Your task to perform on an android device: search for starred emails in the gmail app Image 0: 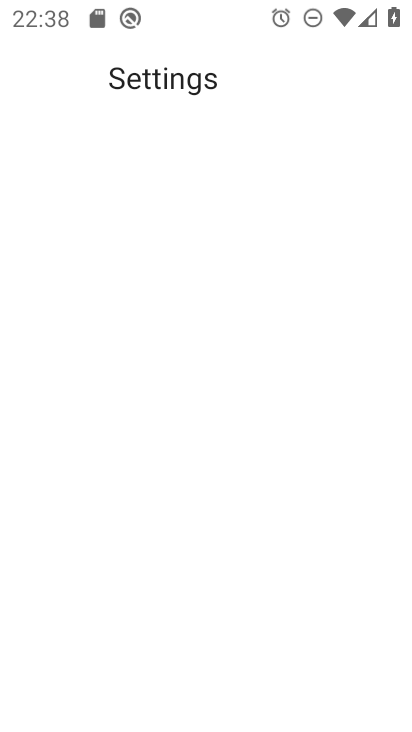
Step 0: click (370, 235)
Your task to perform on an android device: search for starred emails in the gmail app Image 1: 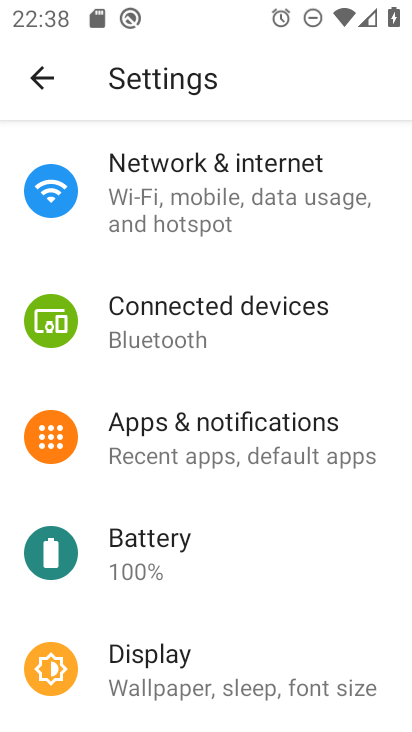
Step 1: press home button
Your task to perform on an android device: search for starred emails in the gmail app Image 2: 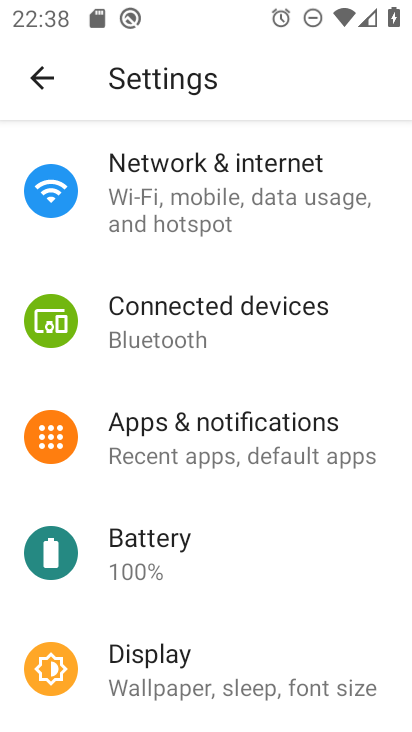
Step 2: press home button
Your task to perform on an android device: search for starred emails in the gmail app Image 3: 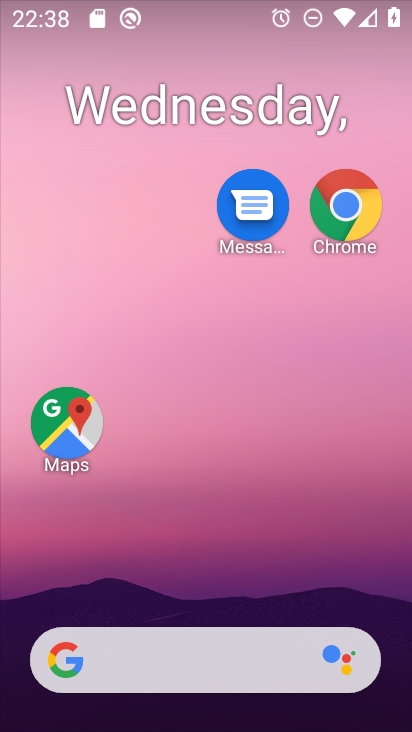
Step 3: drag from (164, 580) to (286, 170)
Your task to perform on an android device: search for starred emails in the gmail app Image 4: 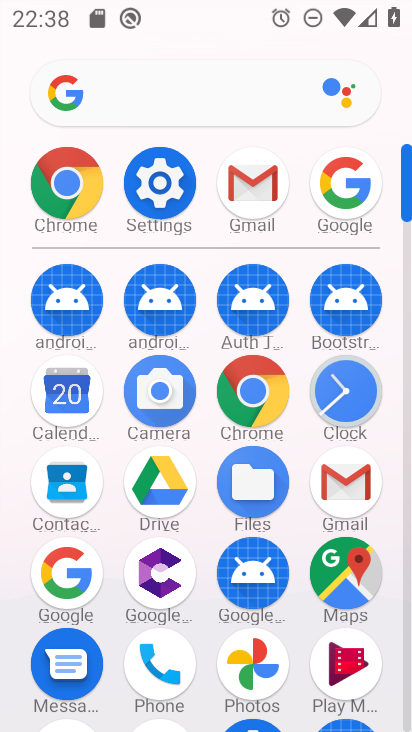
Step 4: click (362, 474)
Your task to perform on an android device: search for starred emails in the gmail app Image 5: 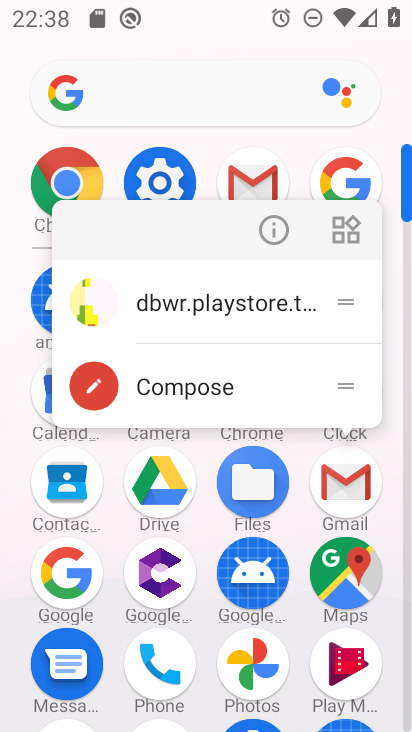
Step 5: click (259, 236)
Your task to perform on an android device: search for starred emails in the gmail app Image 6: 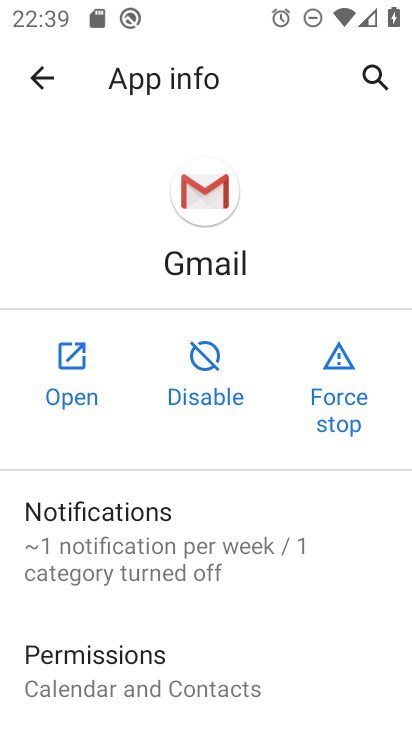
Step 6: click (81, 343)
Your task to perform on an android device: search for starred emails in the gmail app Image 7: 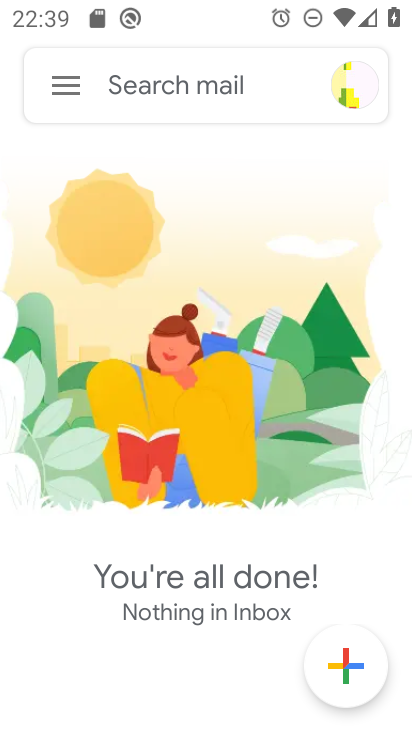
Step 7: click (71, 96)
Your task to perform on an android device: search for starred emails in the gmail app Image 8: 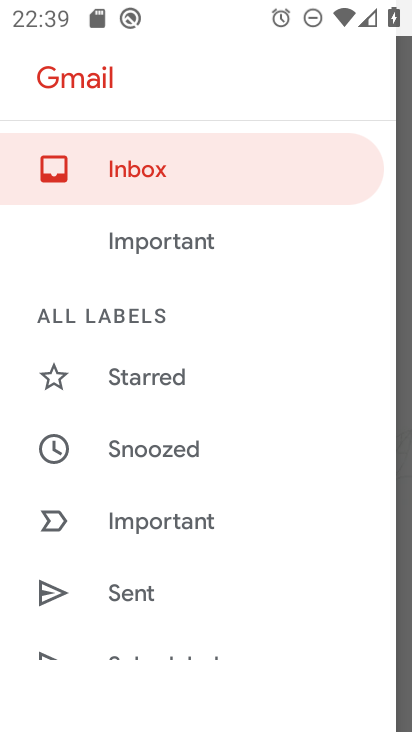
Step 8: click (196, 373)
Your task to perform on an android device: search for starred emails in the gmail app Image 9: 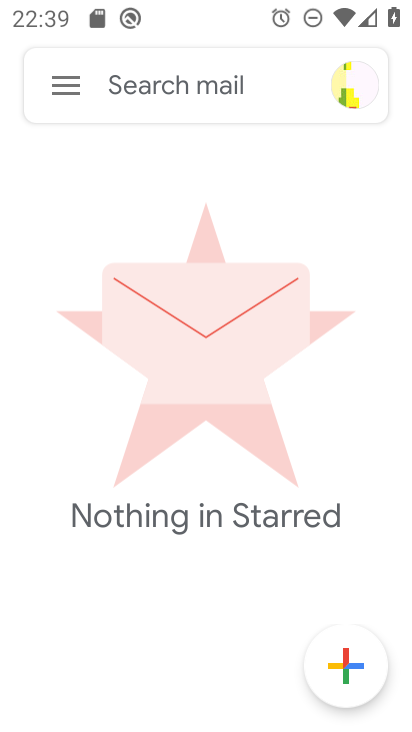
Step 9: task complete